Your task to perform on an android device: turn off improve location accuracy Image 0: 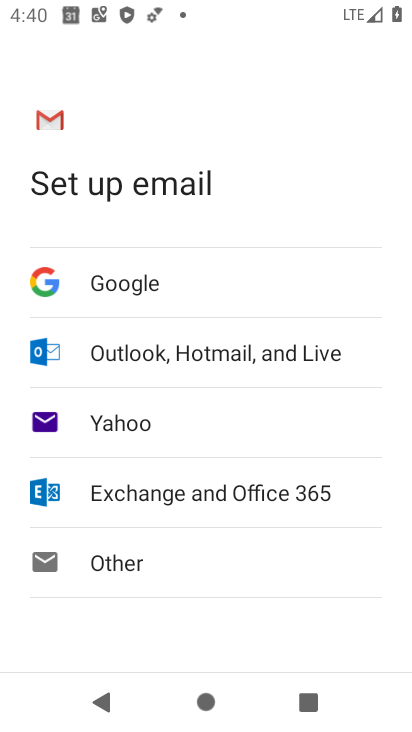
Step 0: press back button
Your task to perform on an android device: turn off improve location accuracy Image 1: 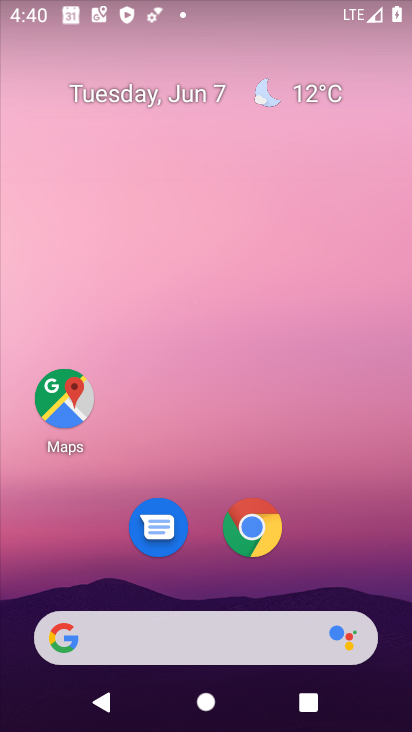
Step 1: drag from (325, 581) to (175, 82)
Your task to perform on an android device: turn off improve location accuracy Image 2: 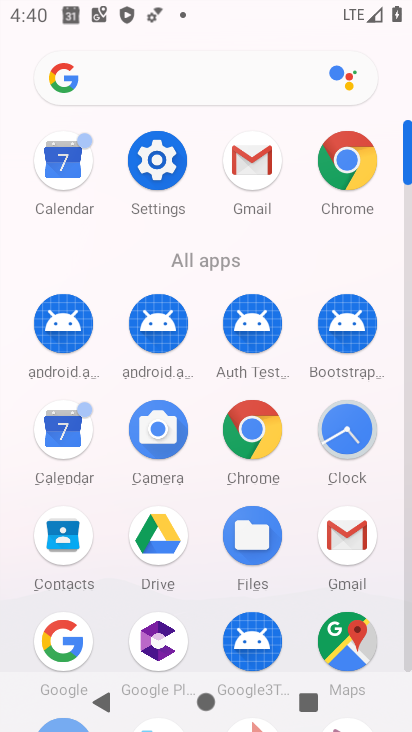
Step 2: click (155, 158)
Your task to perform on an android device: turn off improve location accuracy Image 3: 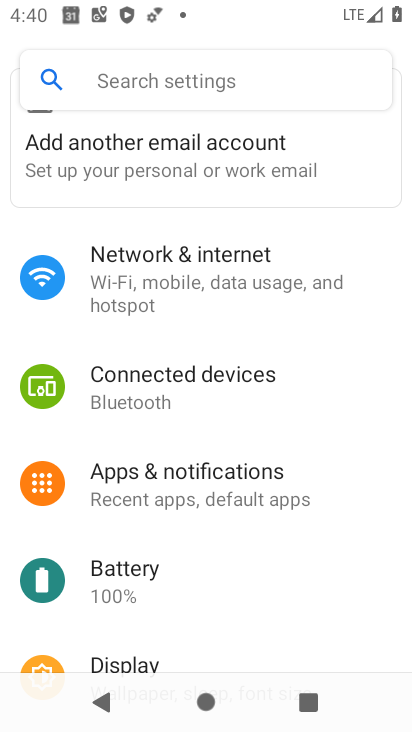
Step 3: drag from (194, 574) to (226, 463)
Your task to perform on an android device: turn off improve location accuracy Image 4: 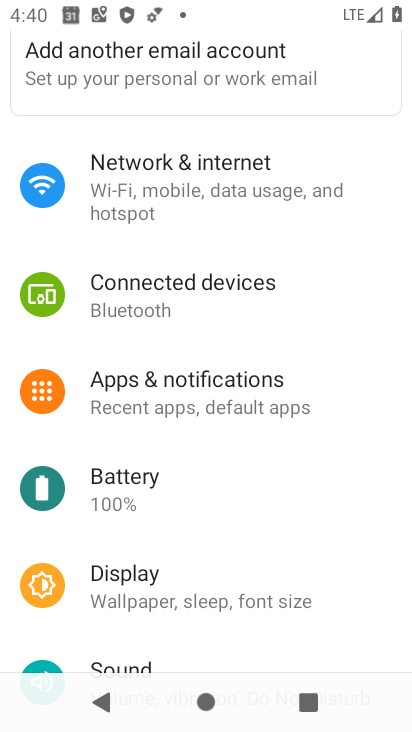
Step 4: drag from (165, 625) to (252, 503)
Your task to perform on an android device: turn off improve location accuracy Image 5: 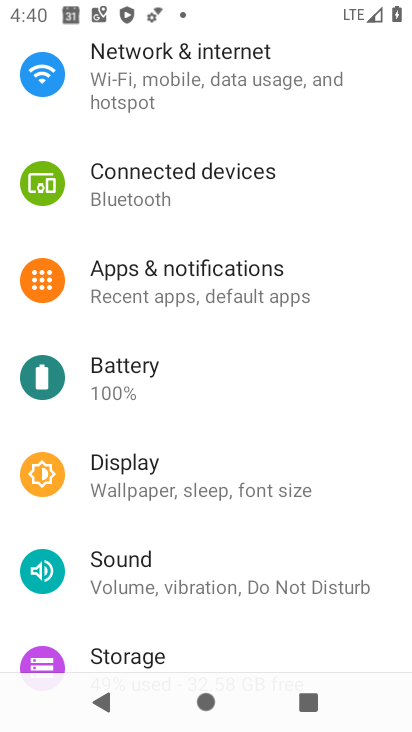
Step 5: drag from (188, 622) to (304, 464)
Your task to perform on an android device: turn off improve location accuracy Image 6: 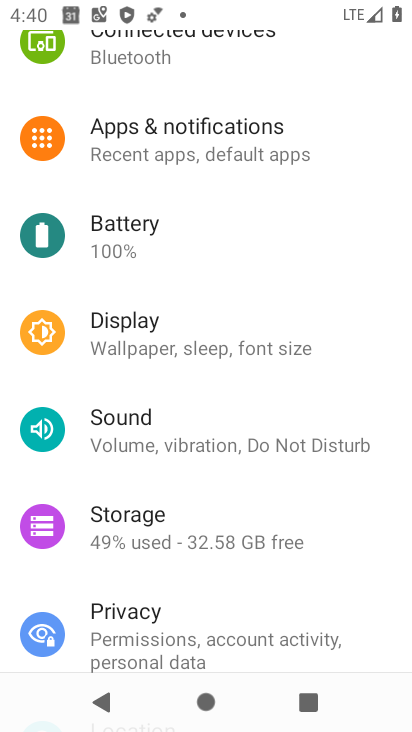
Step 6: drag from (202, 589) to (273, 457)
Your task to perform on an android device: turn off improve location accuracy Image 7: 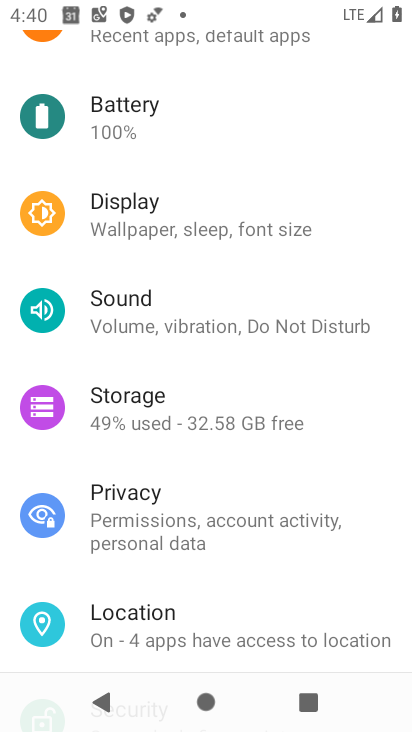
Step 7: drag from (207, 597) to (303, 475)
Your task to perform on an android device: turn off improve location accuracy Image 8: 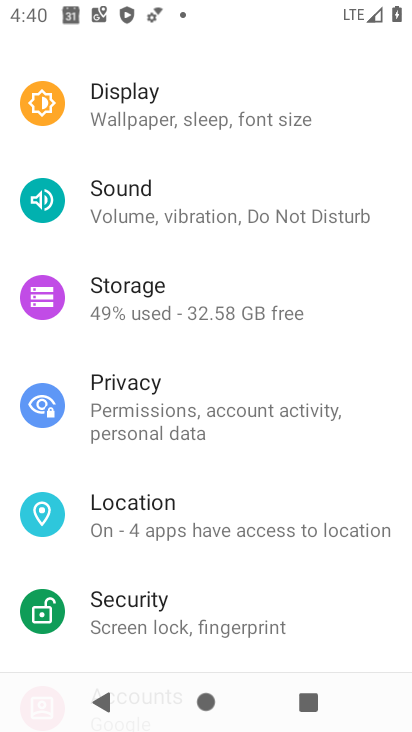
Step 8: click (239, 538)
Your task to perform on an android device: turn off improve location accuracy Image 9: 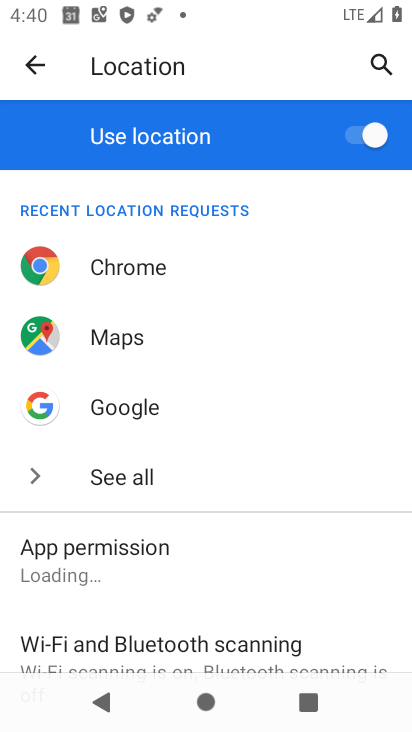
Step 9: drag from (179, 597) to (271, 418)
Your task to perform on an android device: turn off improve location accuracy Image 10: 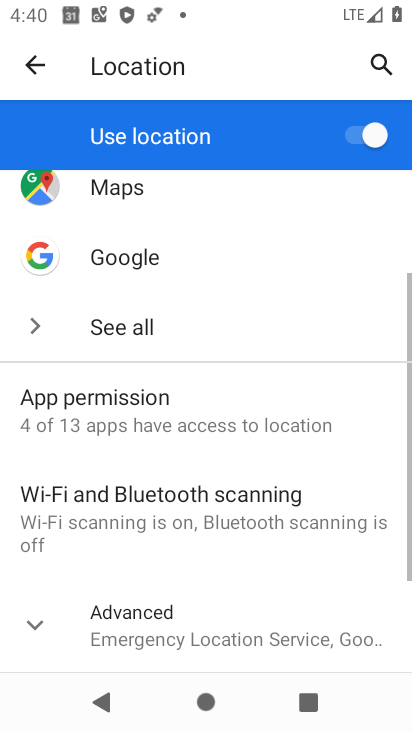
Step 10: click (188, 624)
Your task to perform on an android device: turn off improve location accuracy Image 11: 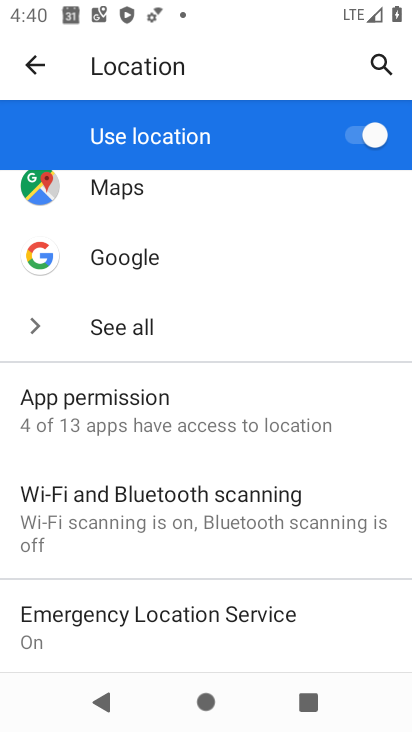
Step 11: drag from (194, 636) to (239, 468)
Your task to perform on an android device: turn off improve location accuracy Image 12: 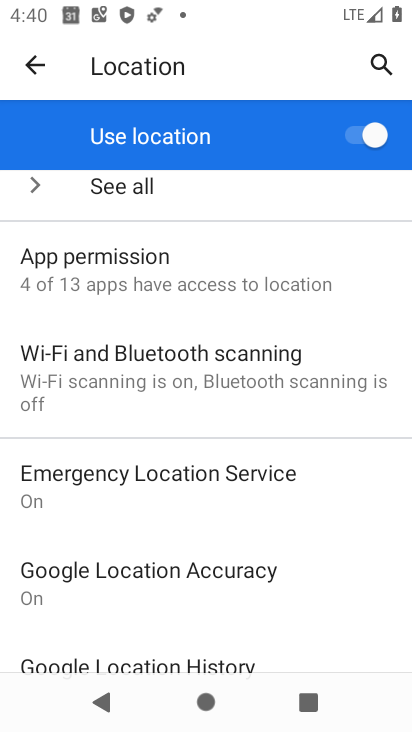
Step 12: drag from (157, 591) to (208, 496)
Your task to perform on an android device: turn off improve location accuracy Image 13: 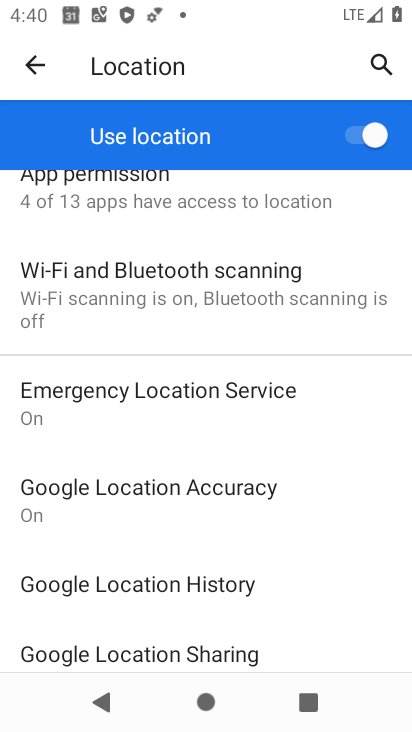
Step 13: click (171, 498)
Your task to perform on an android device: turn off improve location accuracy Image 14: 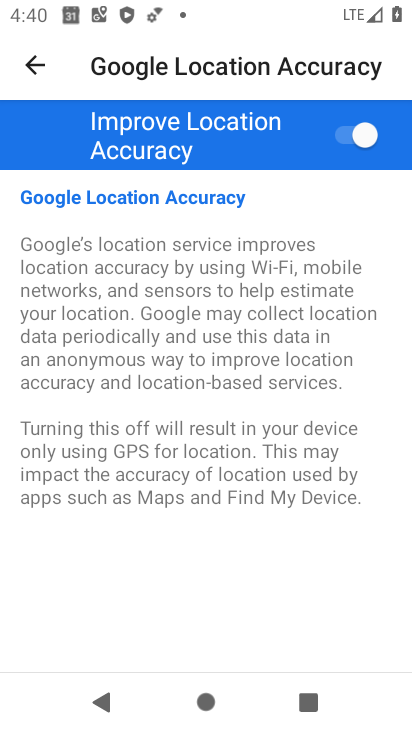
Step 14: click (372, 135)
Your task to perform on an android device: turn off improve location accuracy Image 15: 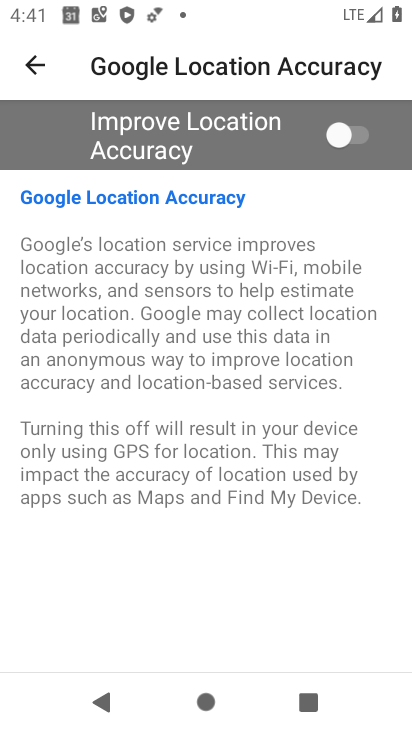
Step 15: task complete